Your task to perform on an android device: turn off sleep mode Image 0: 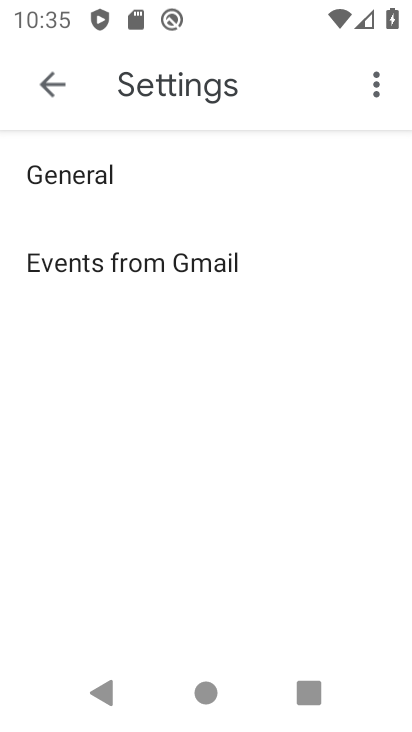
Step 0: press home button
Your task to perform on an android device: turn off sleep mode Image 1: 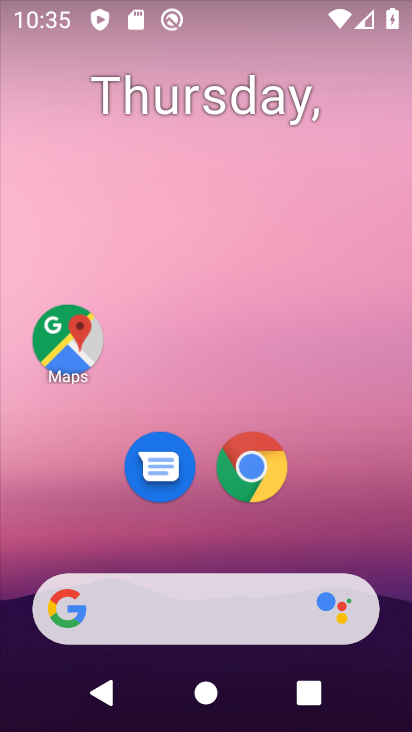
Step 1: drag from (199, 555) to (272, 213)
Your task to perform on an android device: turn off sleep mode Image 2: 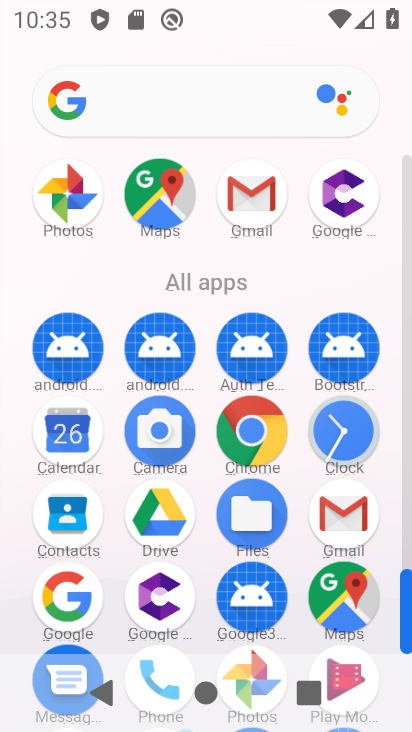
Step 2: drag from (199, 556) to (244, 302)
Your task to perform on an android device: turn off sleep mode Image 3: 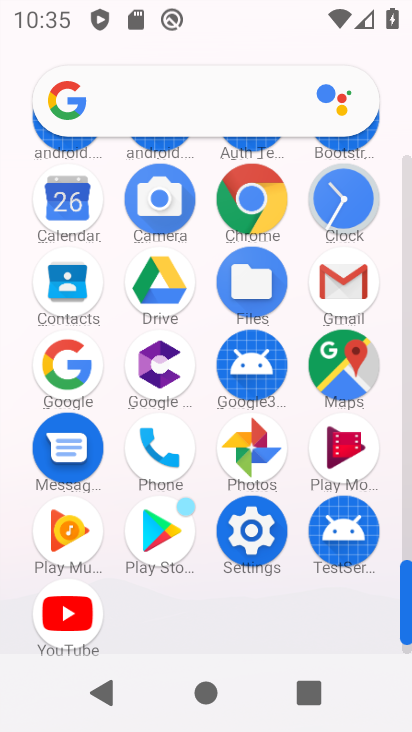
Step 3: click (248, 526)
Your task to perform on an android device: turn off sleep mode Image 4: 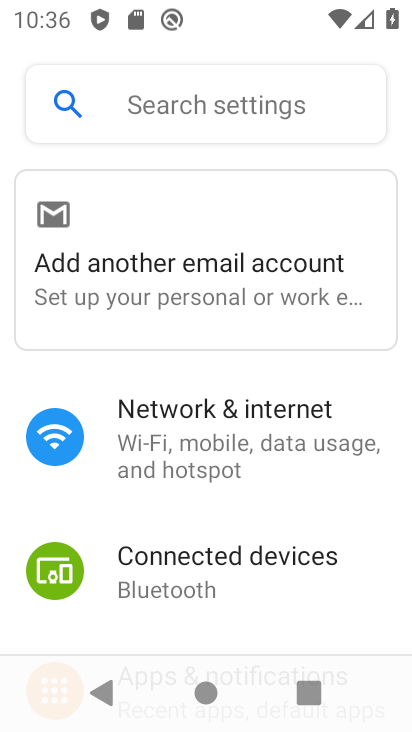
Step 4: drag from (179, 546) to (226, 364)
Your task to perform on an android device: turn off sleep mode Image 5: 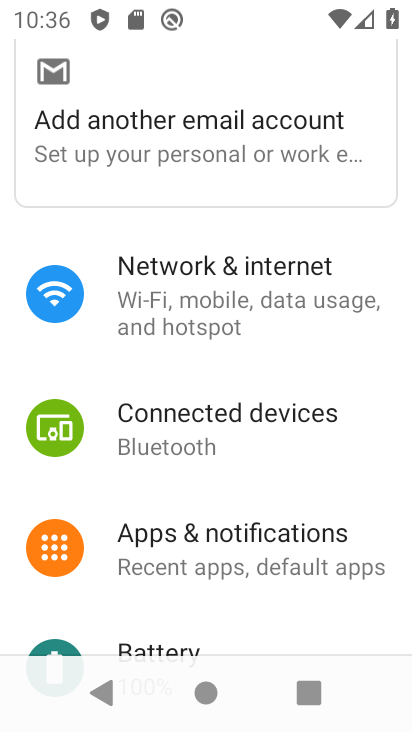
Step 5: drag from (321, 574) to (287, 135)
Your task to perform on an android device: turn off sleep mode Image 6: 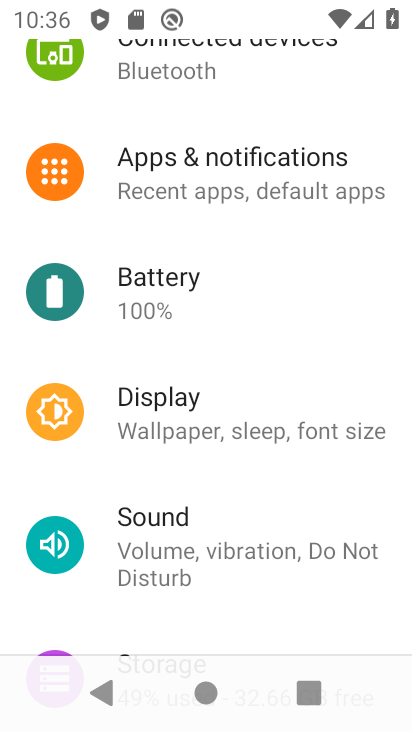
Step 6: click (205, 396)
Your task to perform on an android device: turn off sleep mode Image 7: 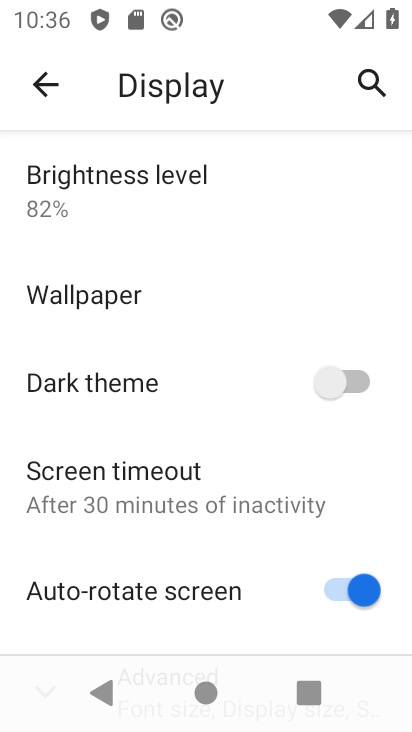
Step 7: task complete